Your task to perform on an android device: Add usb-c to usb-b to the cart on amazon, then select checkout. Image 0: 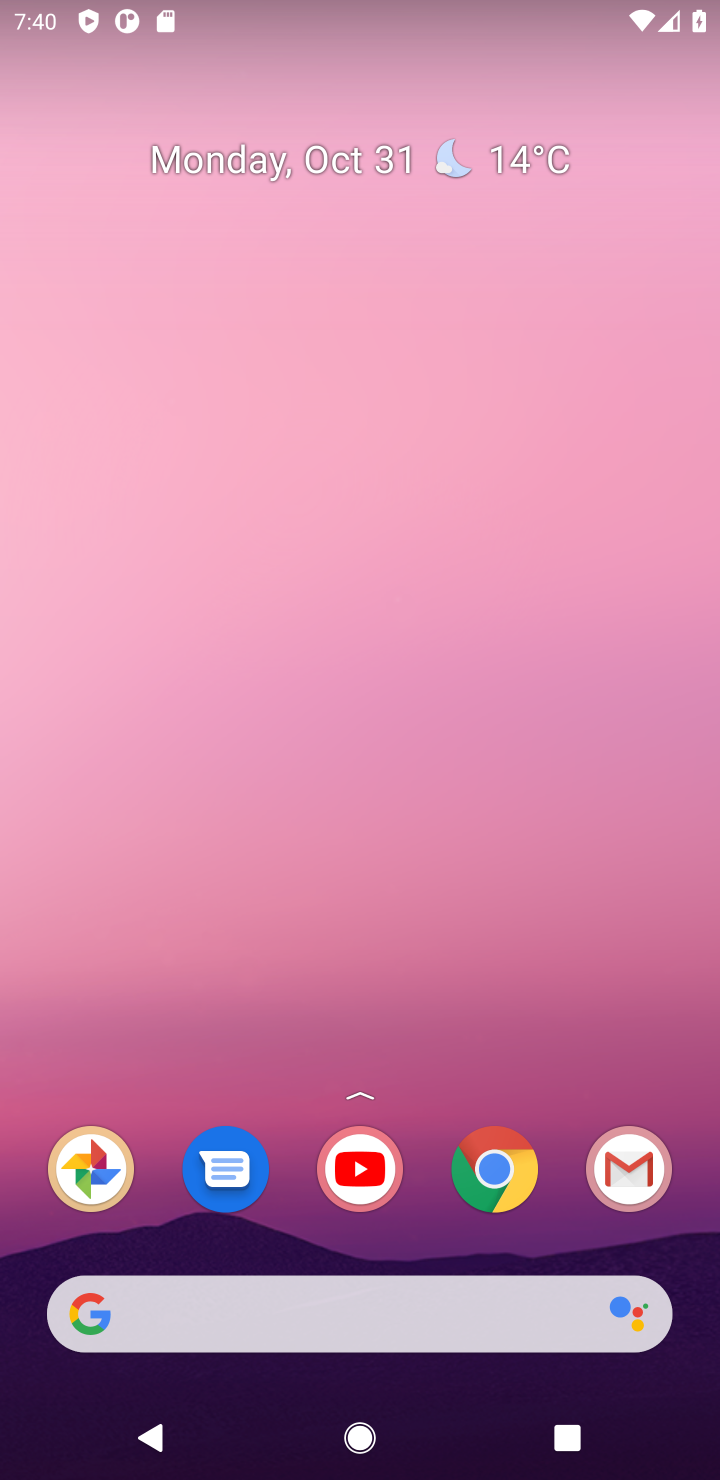
Step 0: drag from (415, 1189) to (376, 209)
Your task to perform on an android device: Add usb-c to usb-b to the cart on amazon, then select checkout. Image 1: 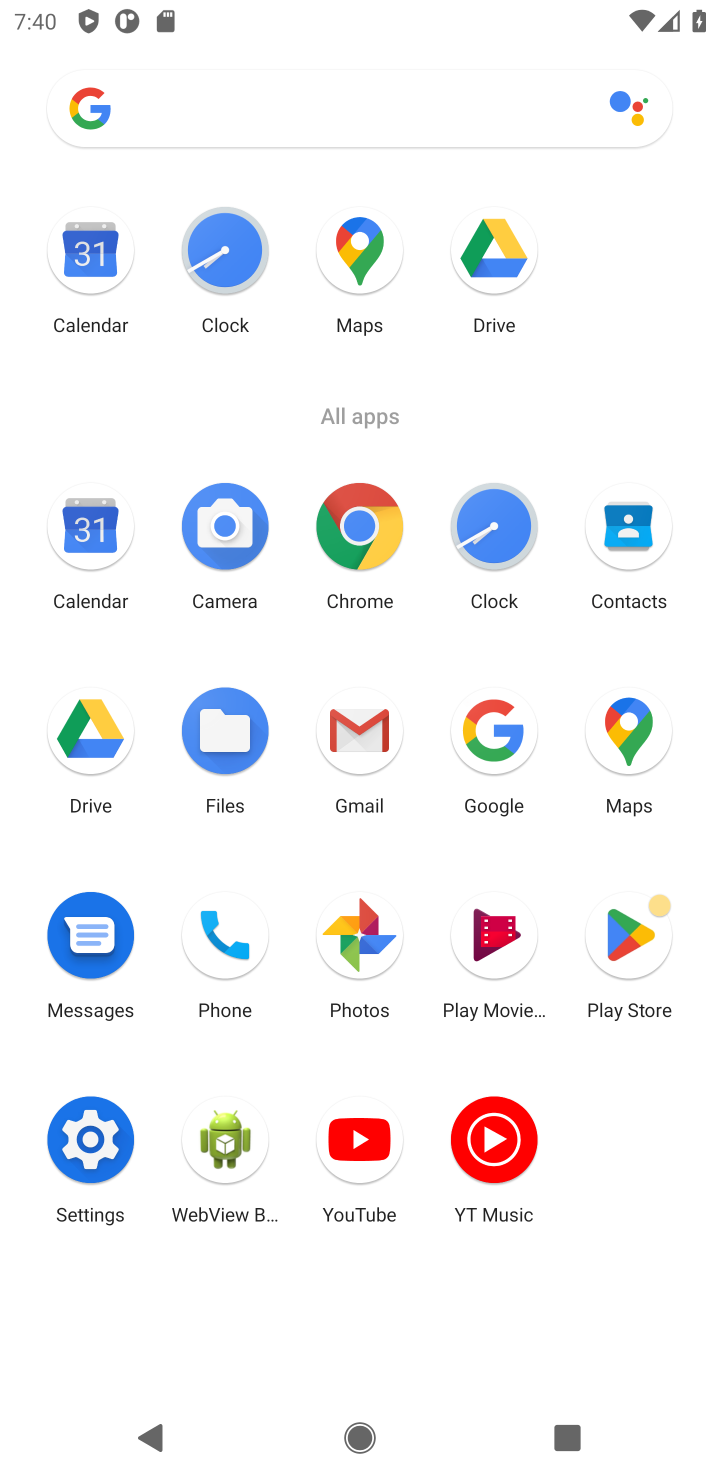
Step 1: click (483, 699)
Your task to perform on an android device: Add usb-c to usb-b to the cart on amazon, then select checkout. Image 2: 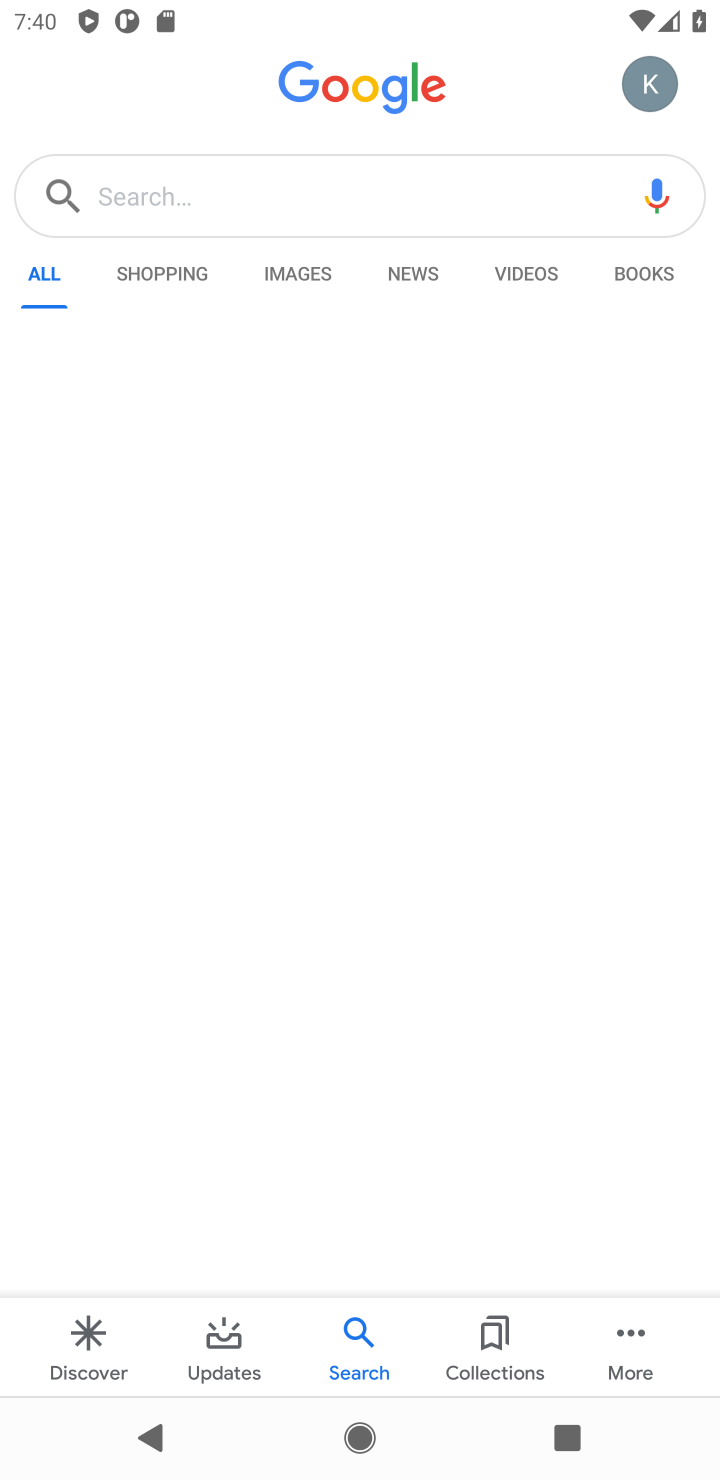
Step 2: click (277, 188)
Your task to perform on an android device: Add usb-c to usb-b to the cart on amazon, then select checkout. Image 3: 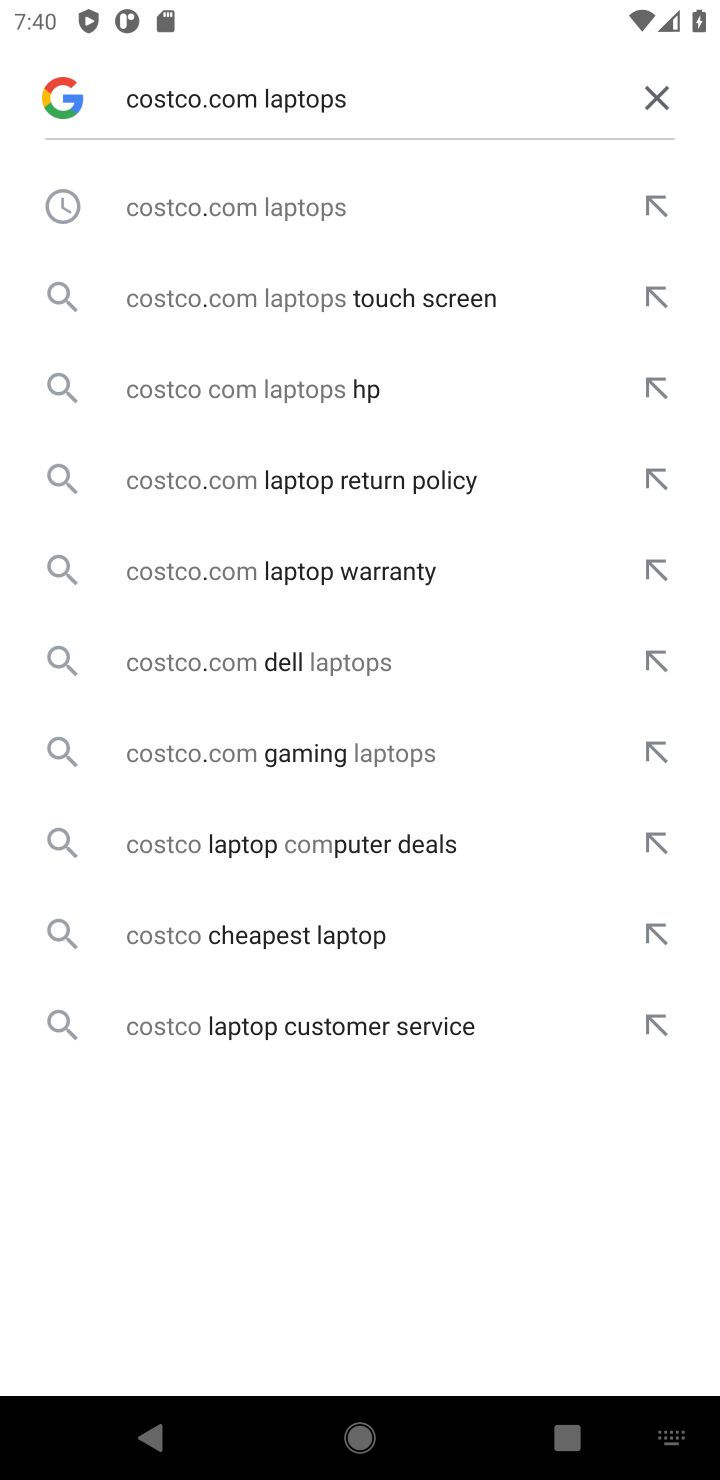
Step 3: click (635, 97)
Your task to perform on an android device: Add usb-c to usb-b to the cart on amazon, then select checkout. Image 4: 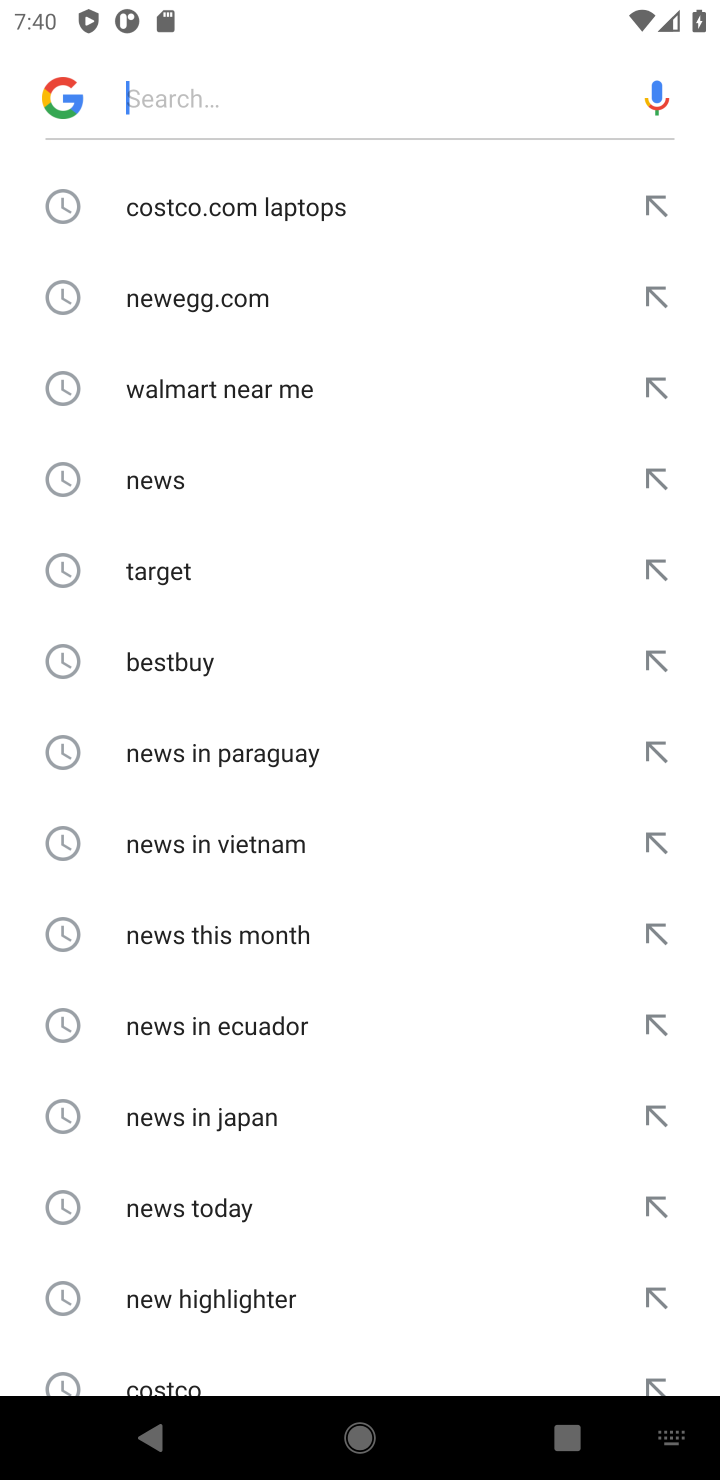
Step 4: click (281, 83)
Your task to perform on an android device: Add usb-c to usb-b to the cart on amazon, then select checkout. Image 5: 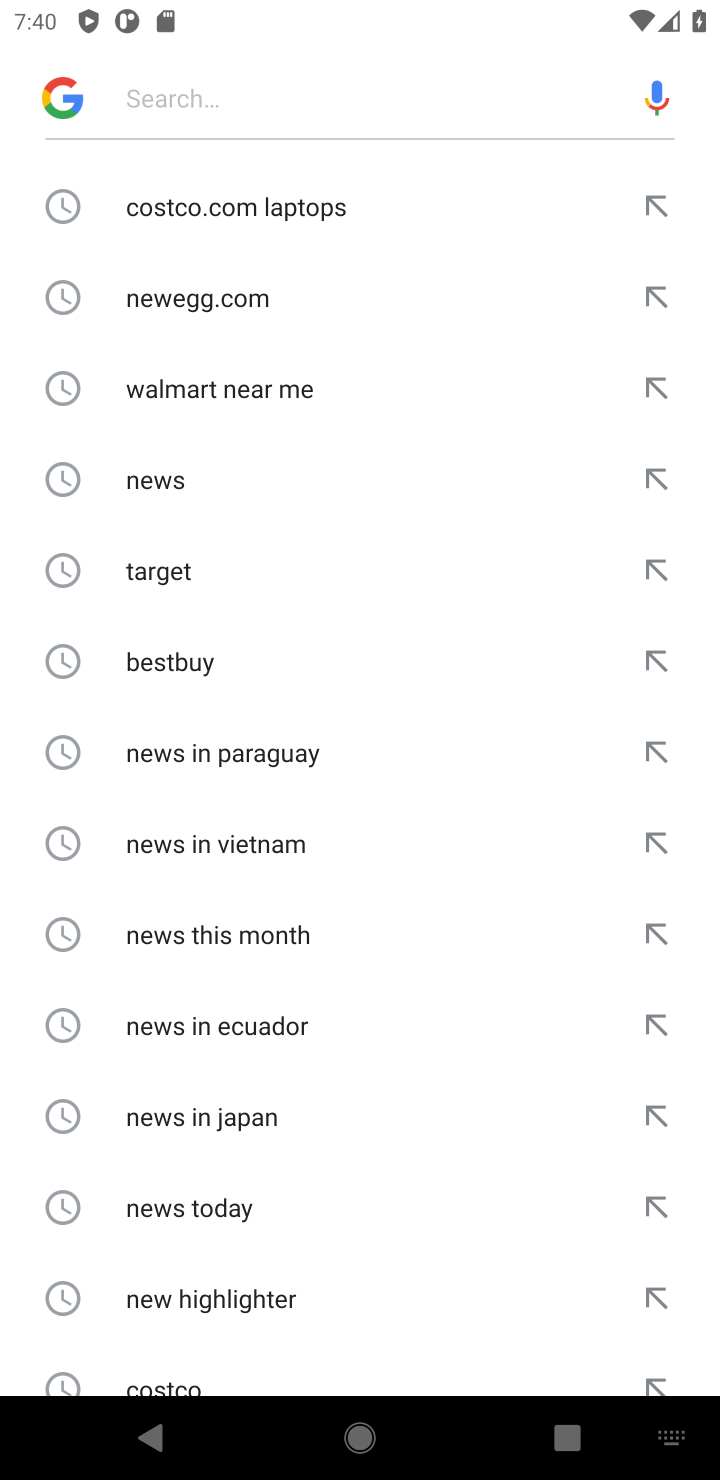
Step 5: type "amazon "
Your task to perform on an android device: Add usb-c to usb-b to the cart on amazon, then select checkout. Image 6: 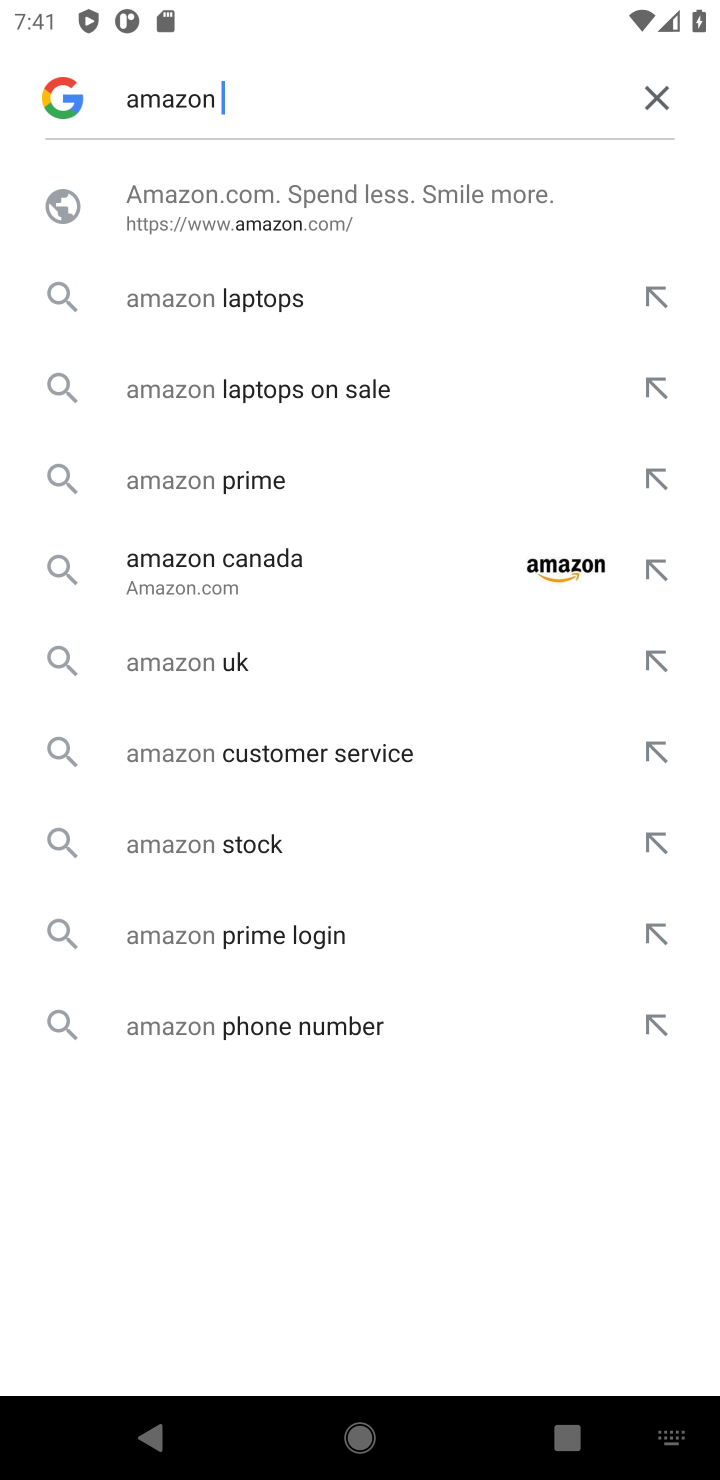
Step 6: click (381, 206)
Your task to perform on an android device: Add usb-c to usb-b to the cart on amazon, then select checkout. Image 7: 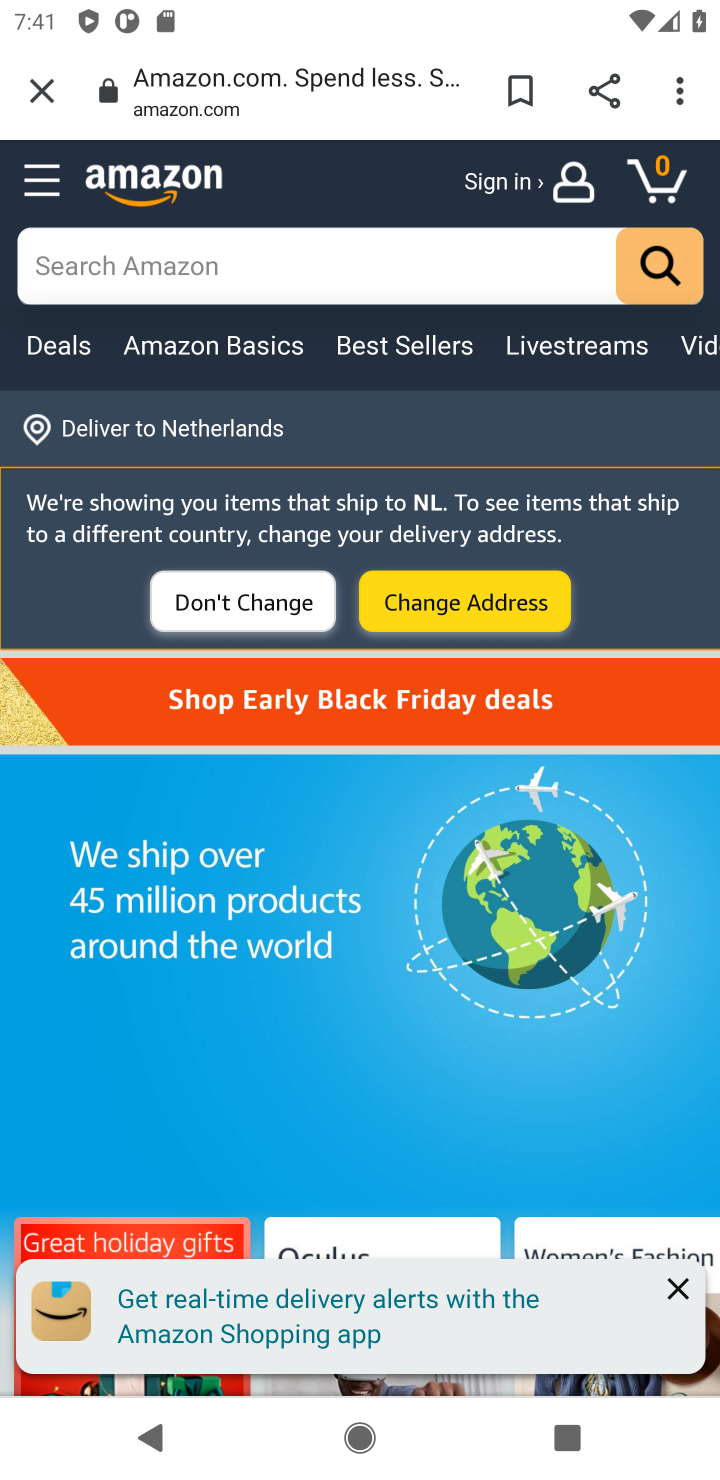
Step 7: click (257, 252)
Your task to perform on an android device: Add usb-c to usb-b to the cart on amazon, then select checkout. Image 8: 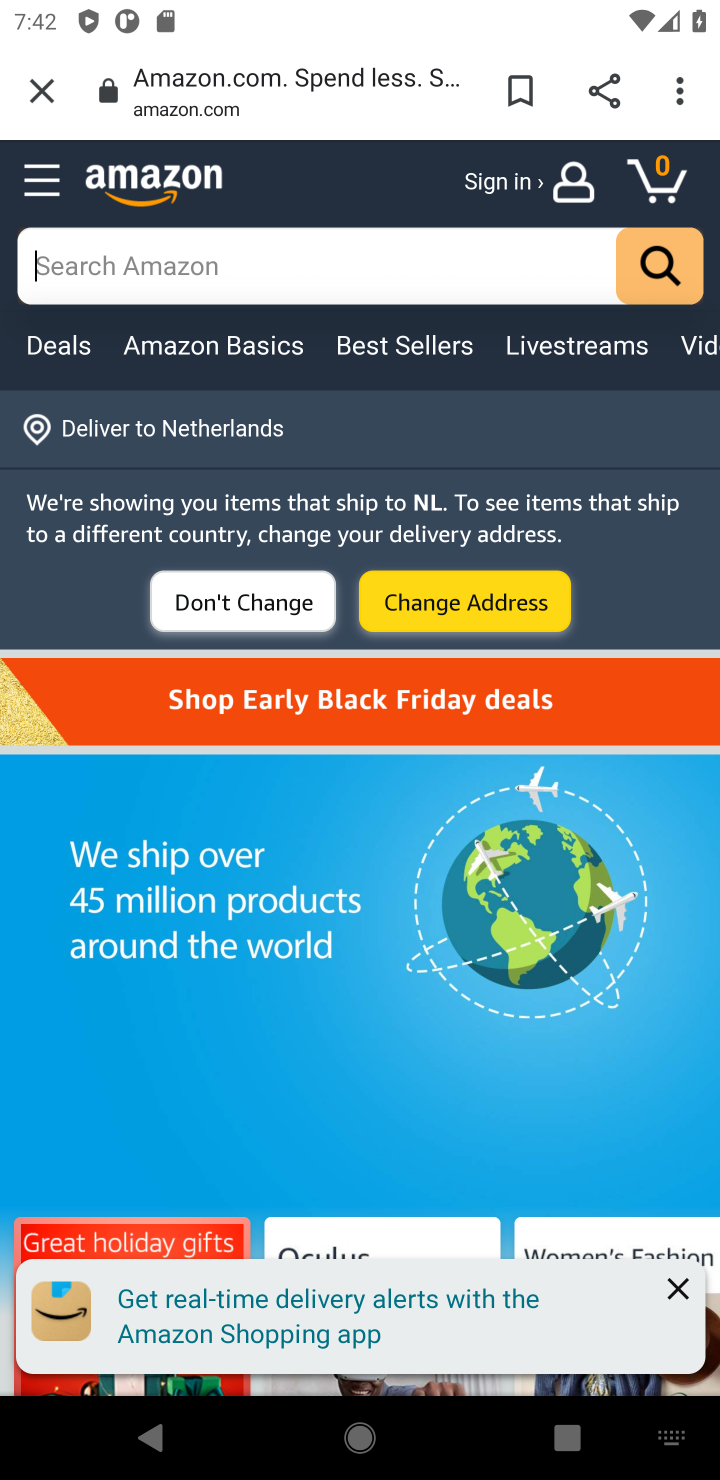
Step 8: type "usb-c to usb-b  "
Your task to perform on an android device: Add usb-c to usb-b to the cart on amazon, then select checkout. Image 9: 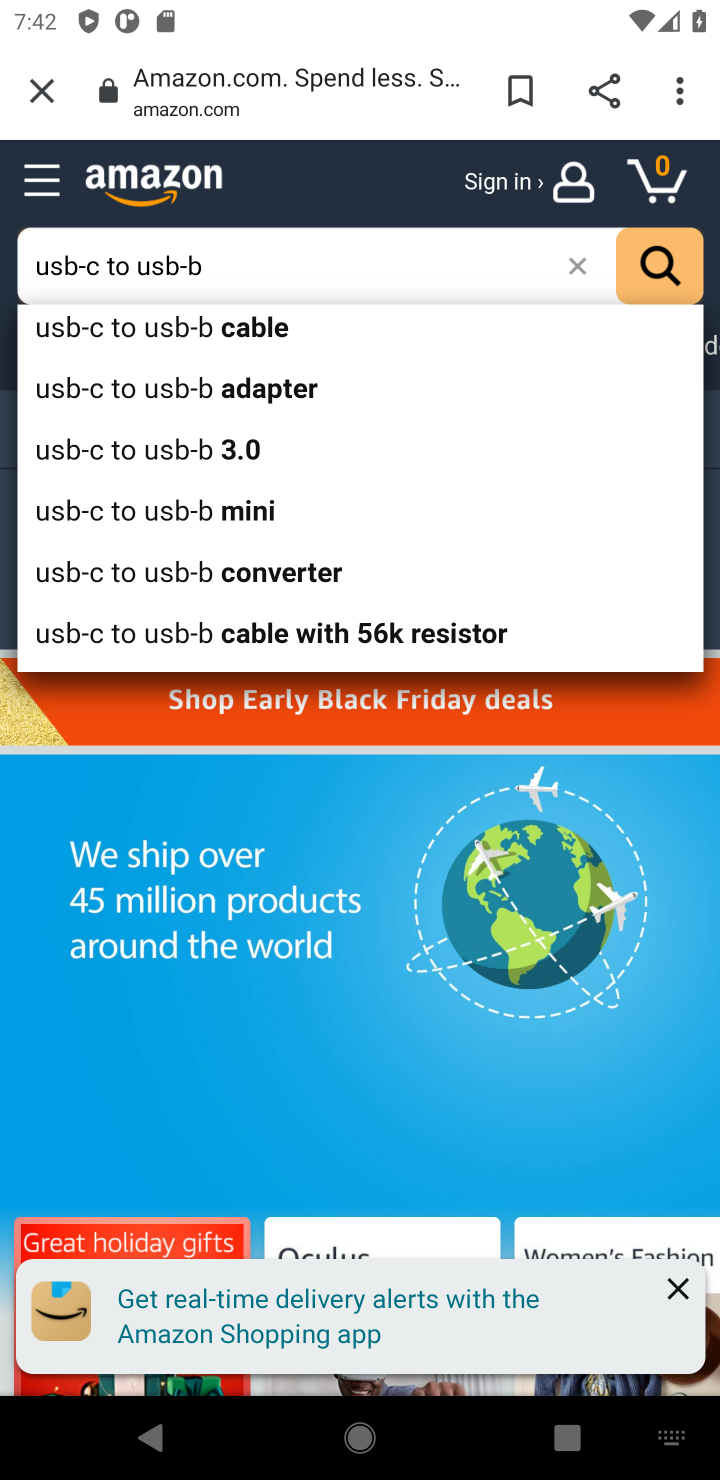
Step 9: click (248, 311)
Your task to perform on an android device: Add usb-c to usb-b to the cart on amazon, then select checkout. Image 10: 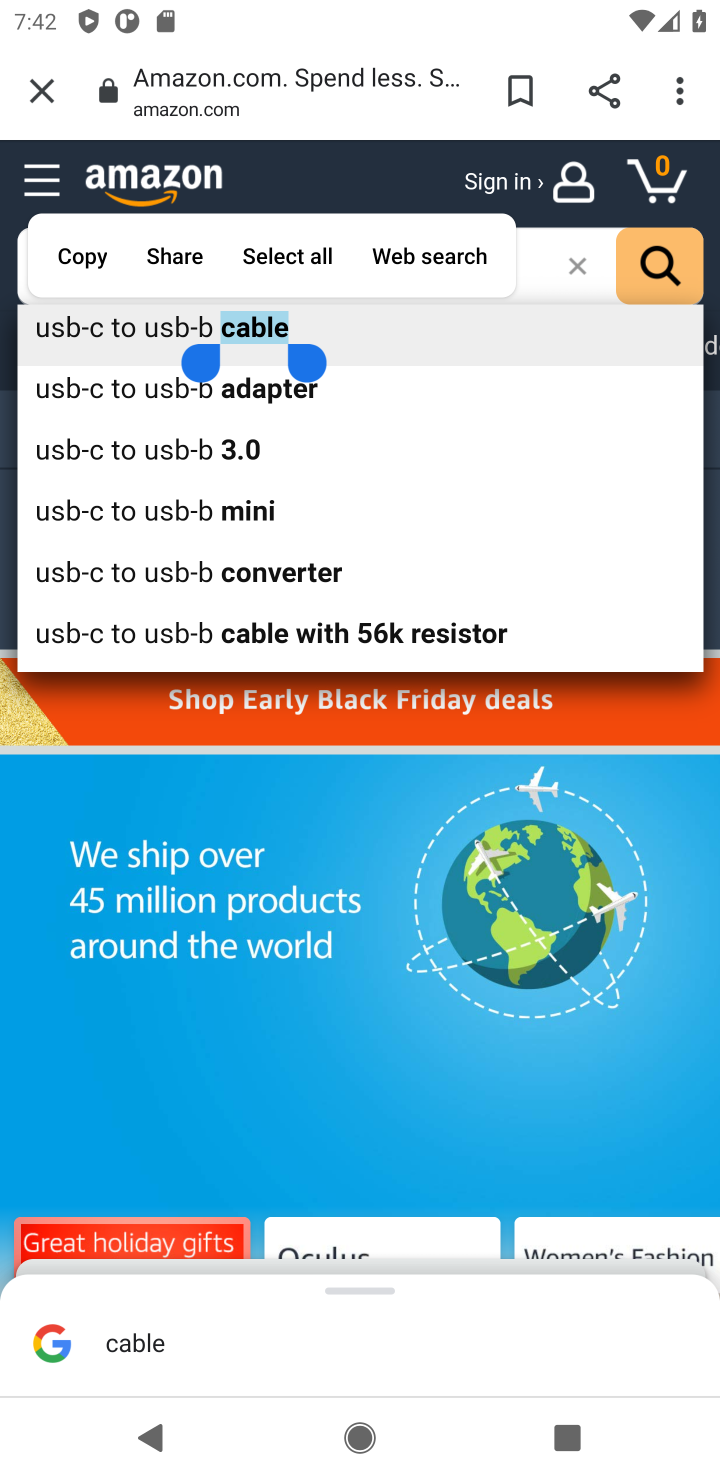
Step 10: click (429, 322)
Your task to perform on an android device: Add usb-c to usb-b to the cart on amazon, then select checkout. Image 11: 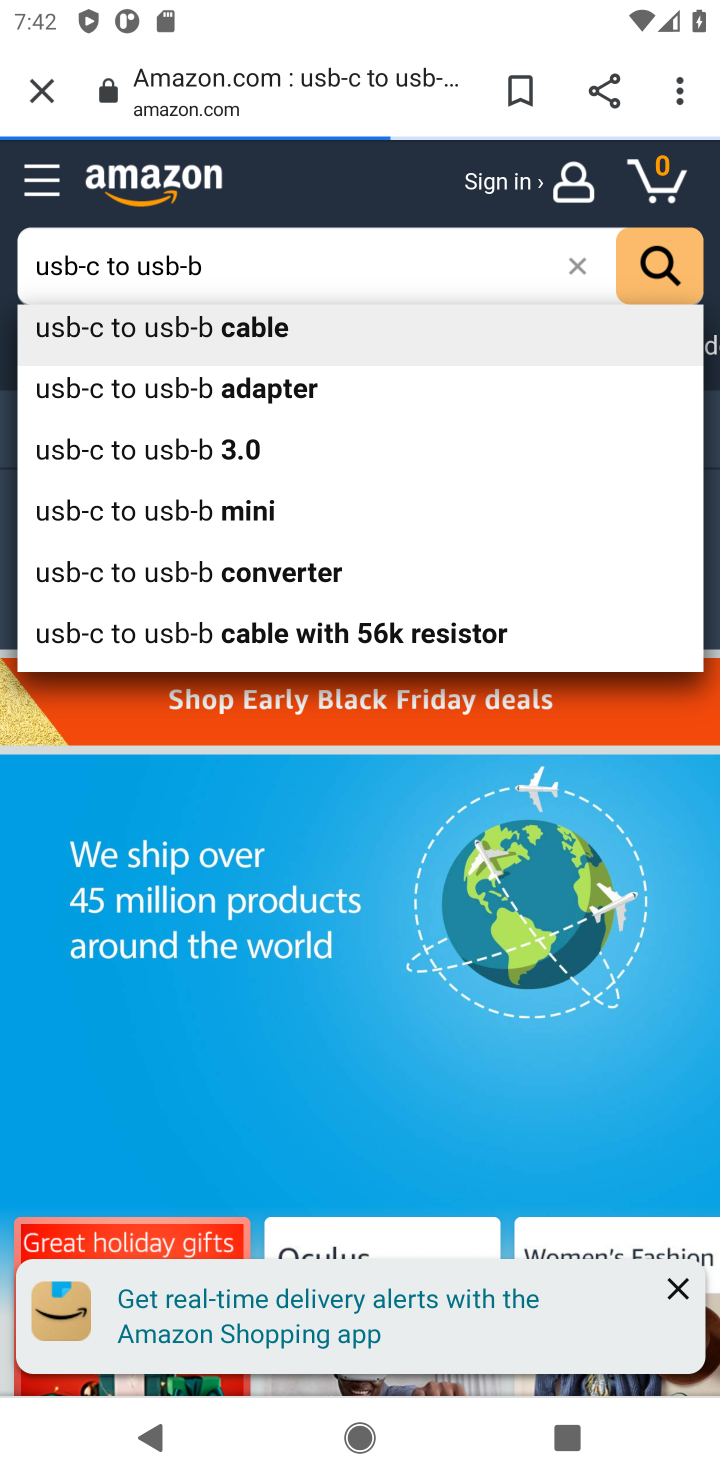
Step 11: click (429, 322)
Your task to perform on an android device: Add usb-c to usb-b to the cart on amazon, then select checkout. Image 12: 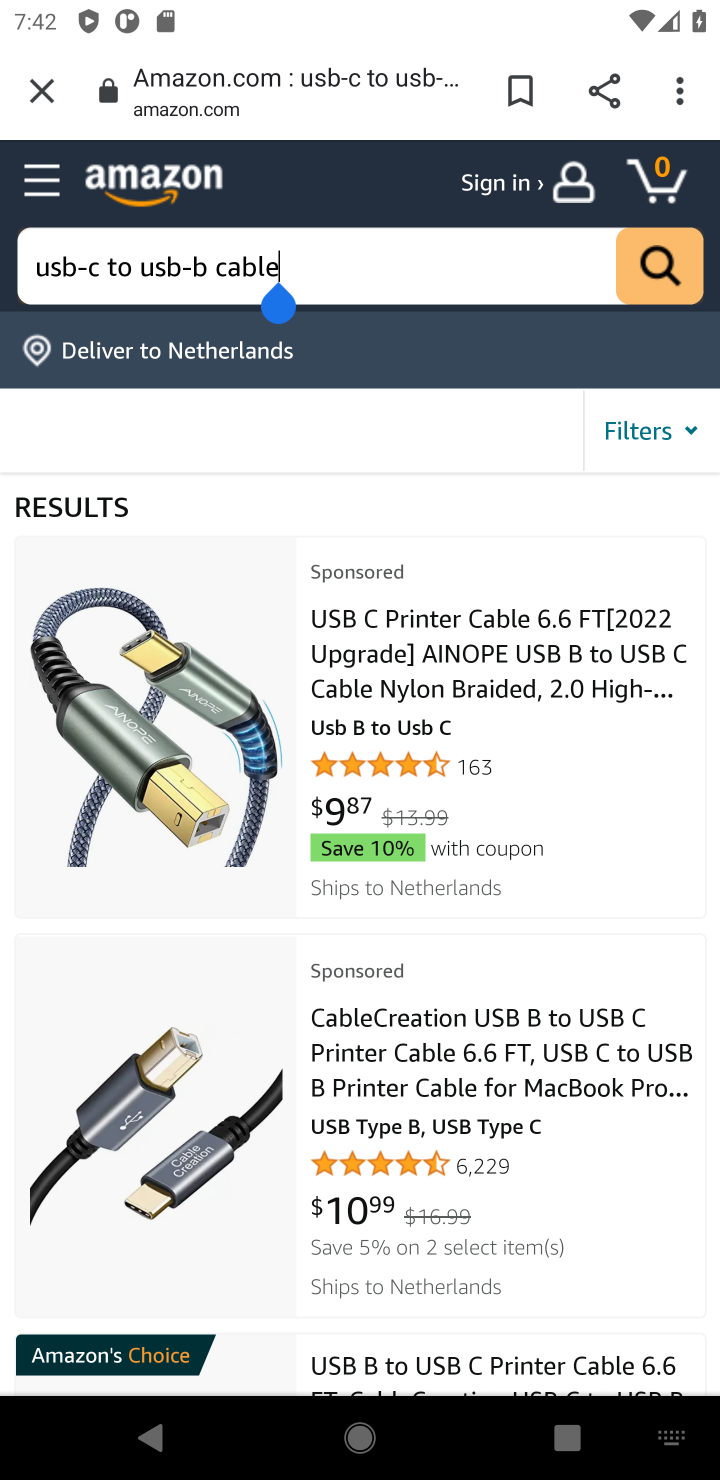
Step 12: click (442, 730)
Your task to perform on an android device: Add usb-c to usb-b to the cart on amazon, then select checkout. Image 13: 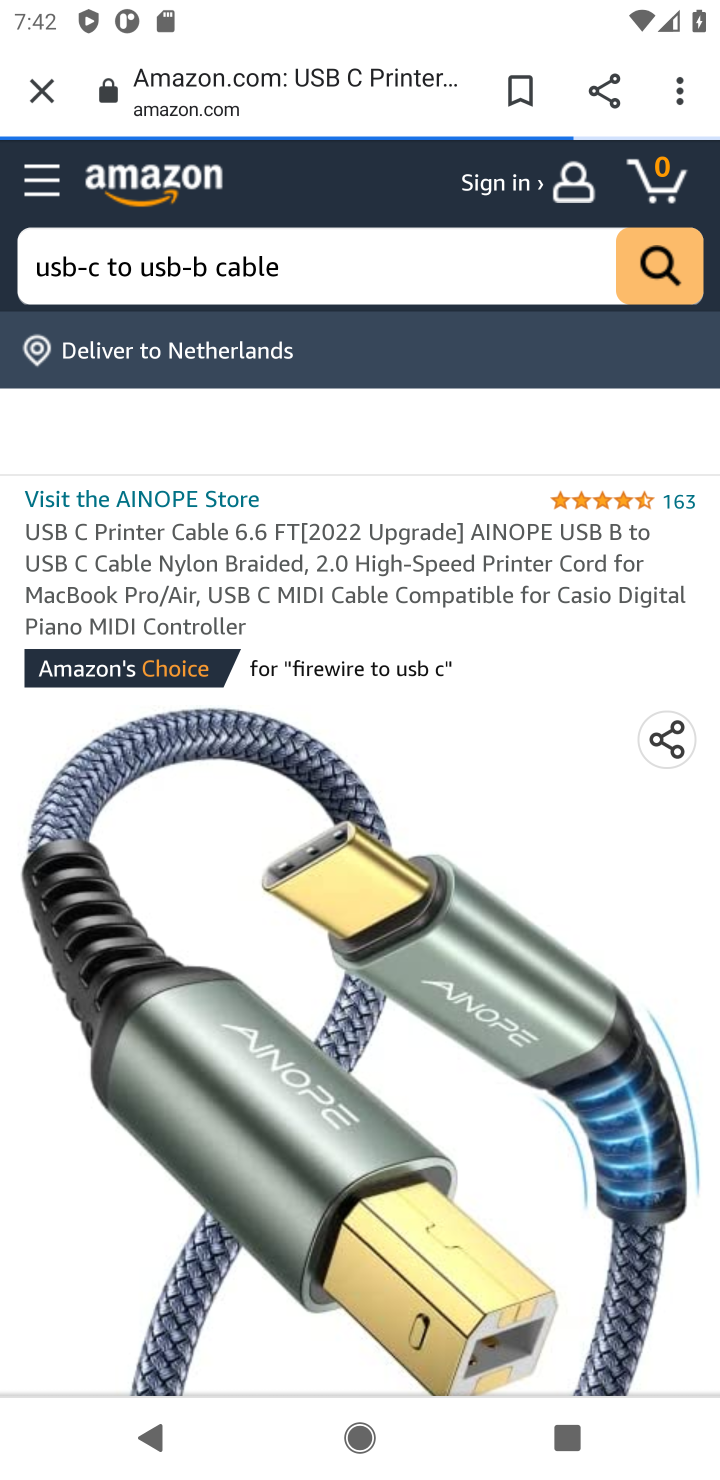
Step 13: drag from (337, 1142) to (436, 580)
Your task to perform on an android device: Add usb-c to usb-b to the cart on amazon, then select checkout. Image 14: 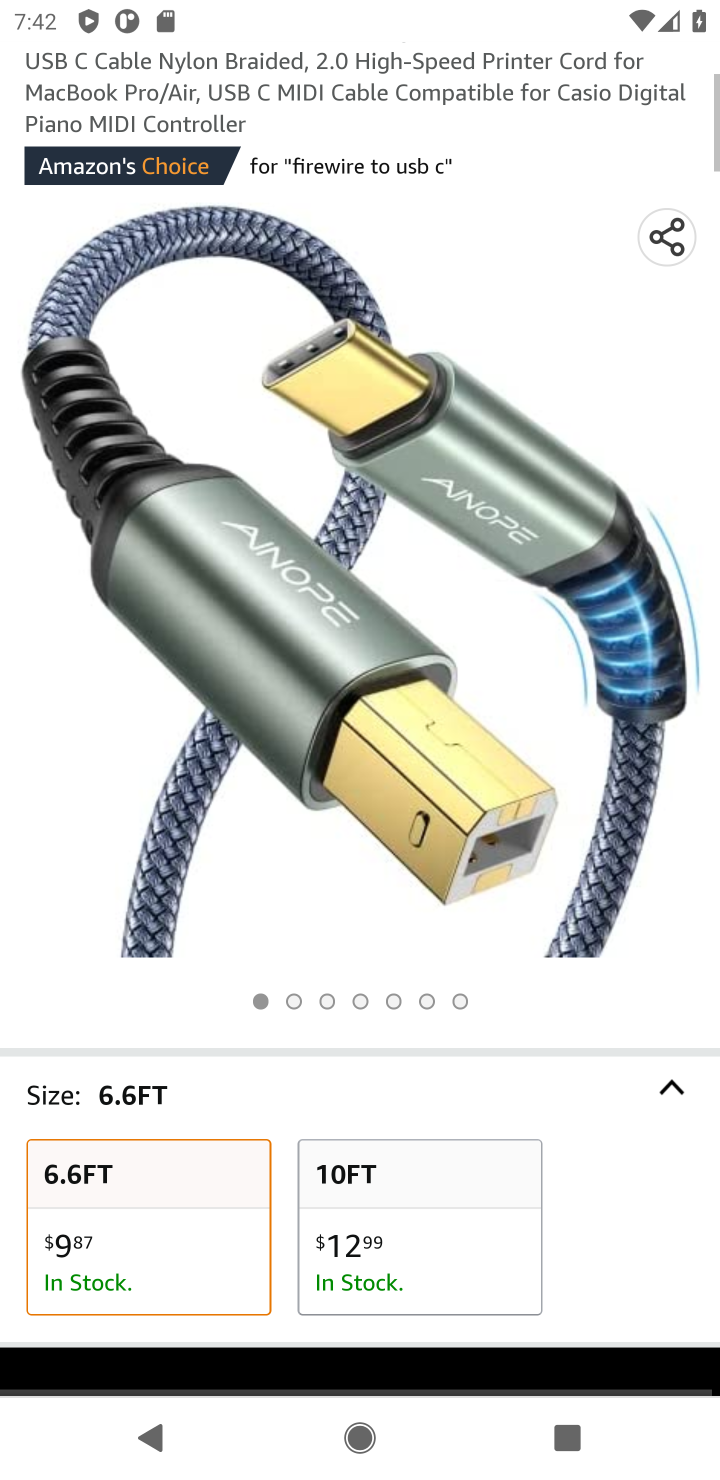
Step 14: drag from (318, 1152) to (461, 285)
Your task to perform on an android device: Add usb-c to usb-b to the cart on amazon, then select checkout. Image 15: 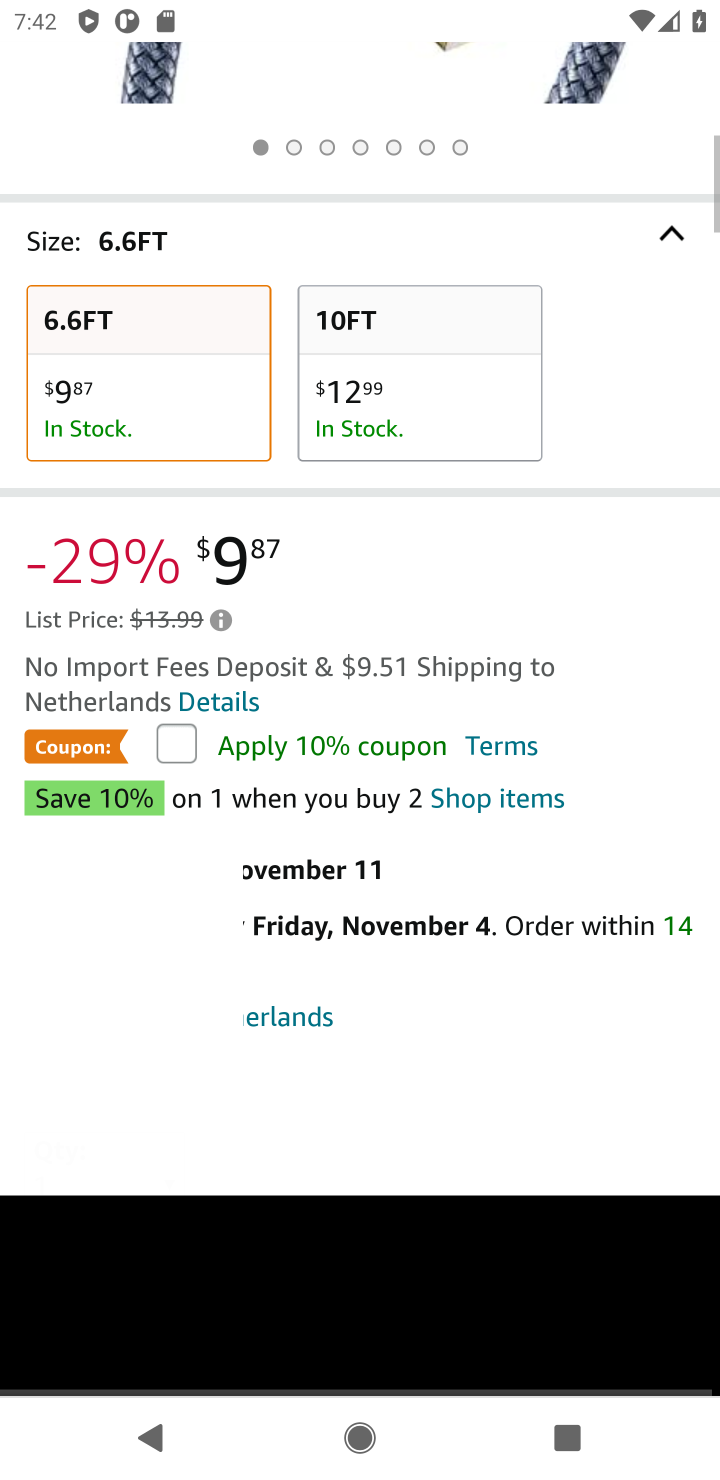
Step 15: drag from (425, 998) to (425, 574)
Your task to perform on an android device: Add usb-c to usb-b to the cart on amazon, then select checkout. Image 16: 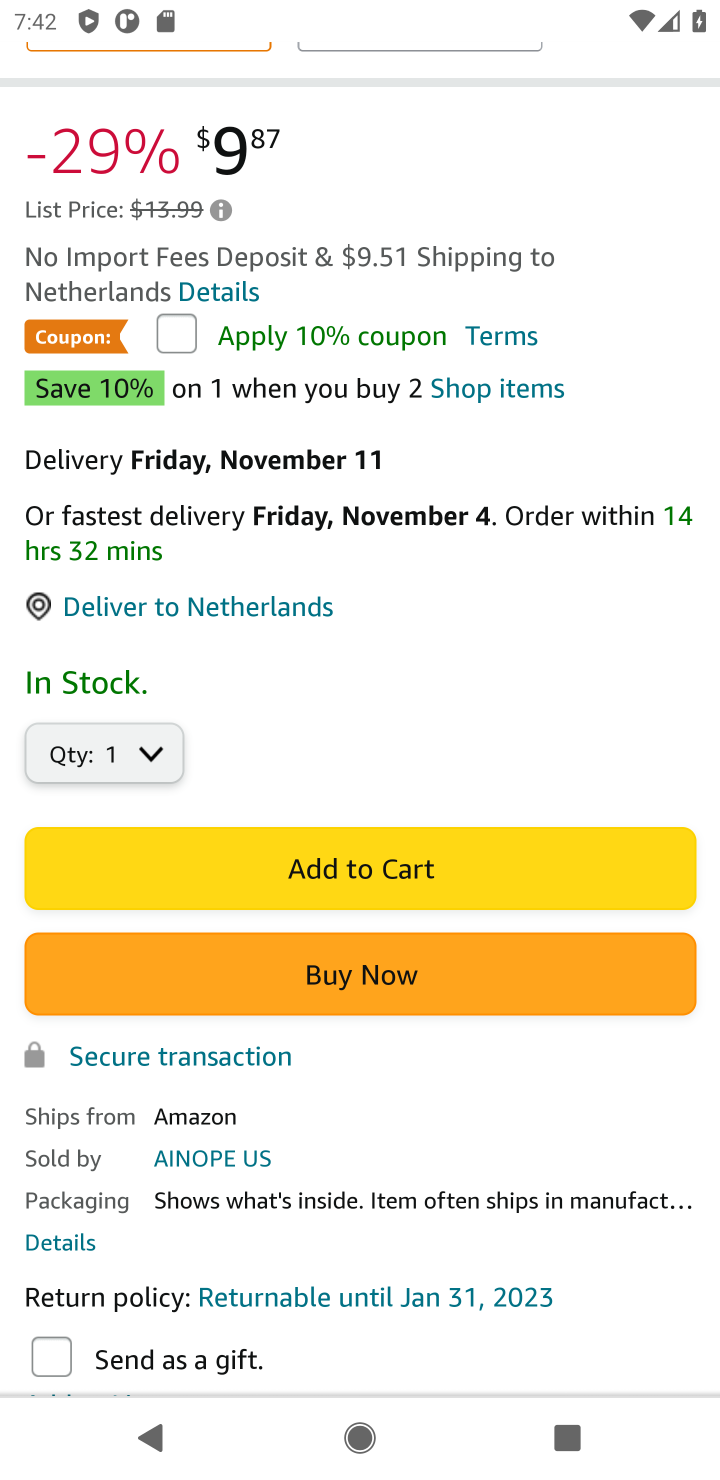
Step 16: click (396, 870)
Your task to perform on an android device: Add usb-c to usb-b to the cart on amazon, then select checkout. Image 17: 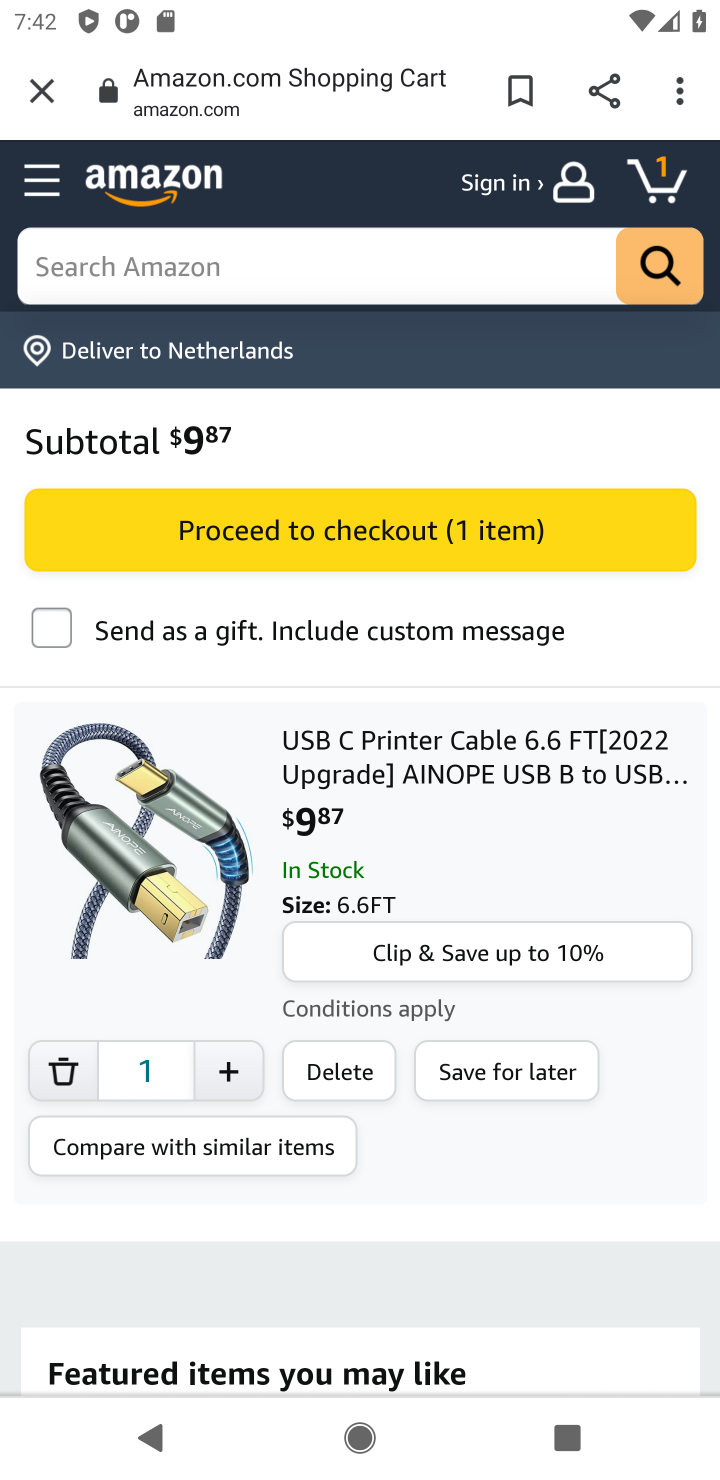
Step 17: task complete